Your task to perform on an android device: turn off picture-in-picture Image 0: 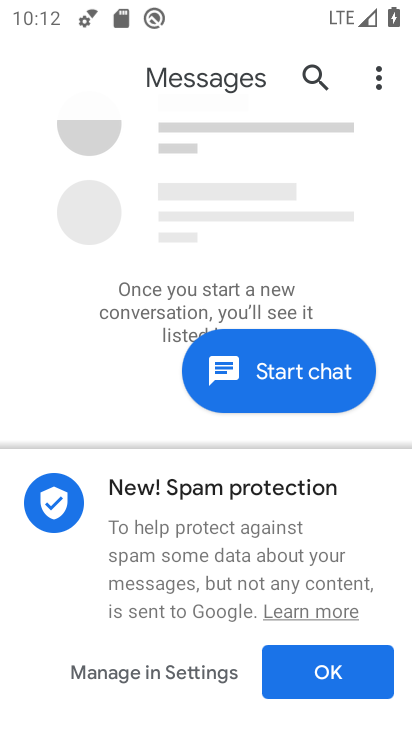
Step 0: press home button
Your task to perform on an android device: turn off picture-in-picture Image 1: 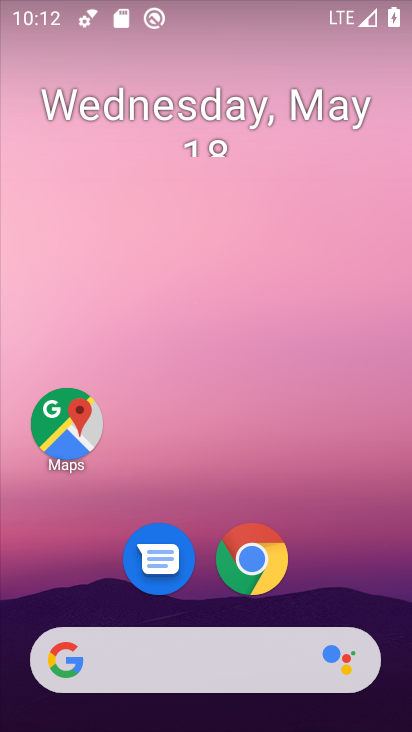
Step 1: click (272, 554)
Your task to perform on an android device: turn off picture-in-picture Image 2: 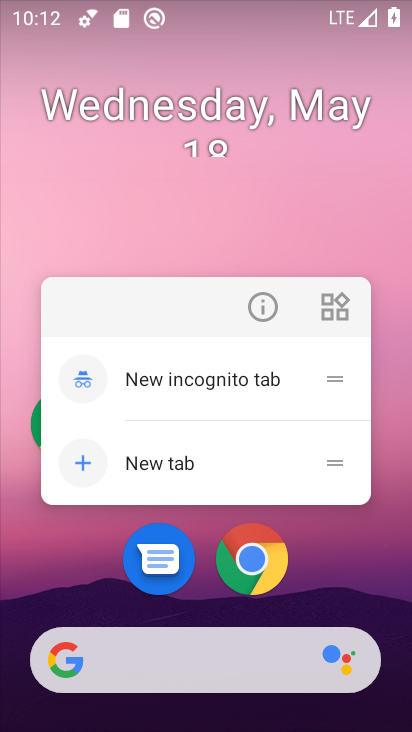
Step 2: click (261, 308)
Your task to perform on an android device: turn off picture-in-picture Image 3: 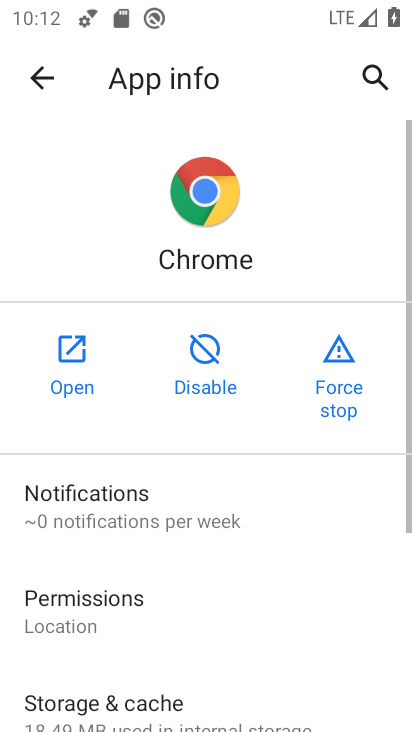
Step 3: drag from (204, 549) to (253, 235)
Your task to perform on an android device: turn off picture-in-picture Image 4: 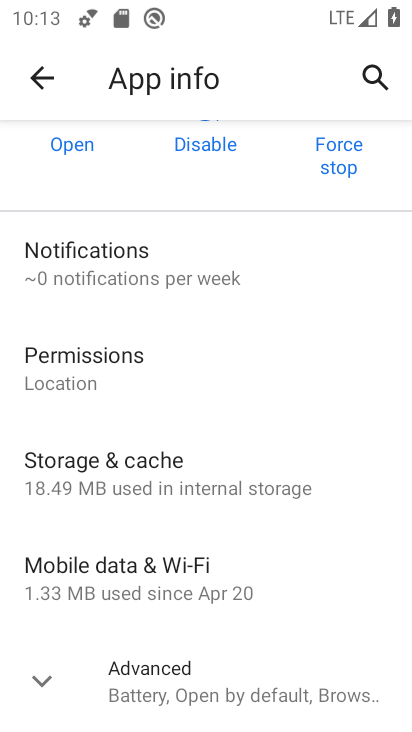
Step 4: drag from (165, 591) to (185, 413)
Your task to perform on an android device: turn off picture-in-picture Image 5: 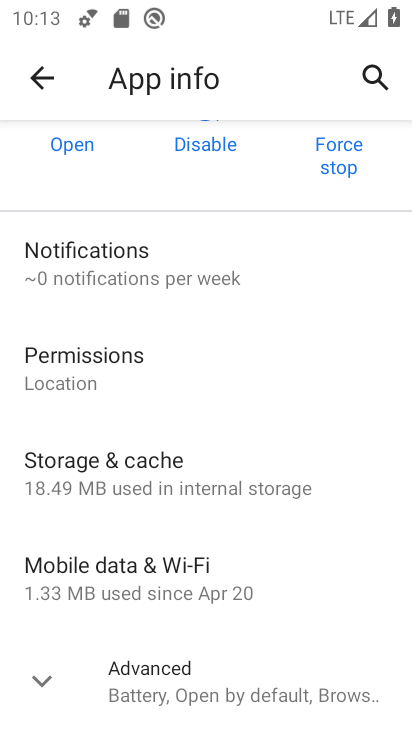
Step 5: click (42, 683)
Your task to perform on an android device: turn off picture-in-picture Image 6: 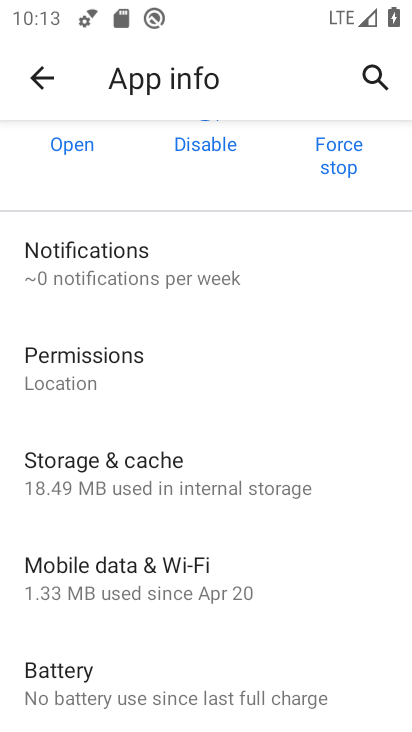
Step 6: drag from (198, 649) to (262, 345)
Your task to perform on an android device: turn off picture-in-picture Image 7: 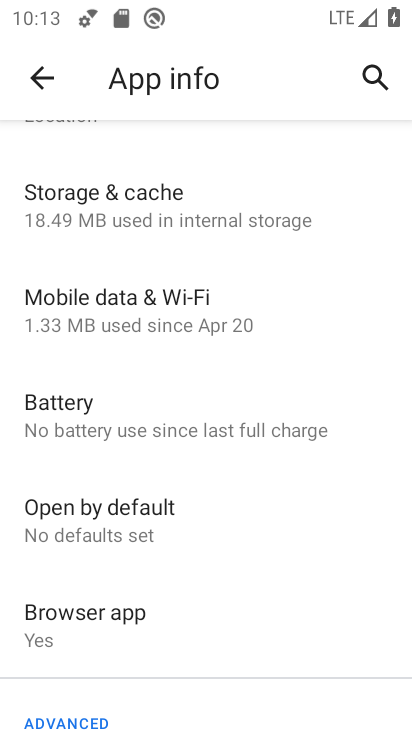
Step 7: drag from (141, 543) to (219, 198)
Your task to perform on an android device: turn off picture-in-picture Image 8: 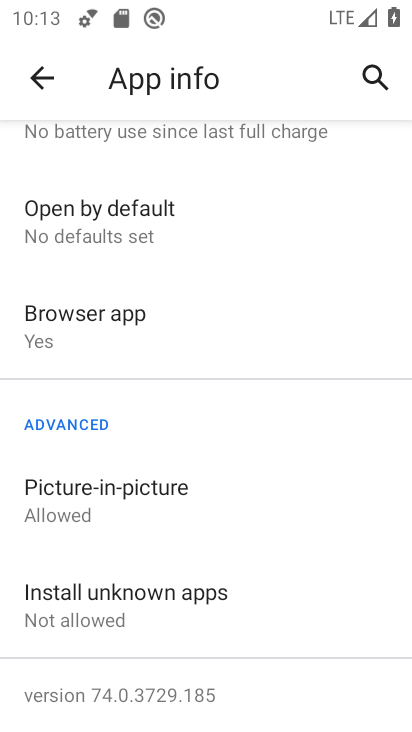
Step 8: click (163, 482)
Your task to perform on an android device: turn off picture-in-picture Image 9: 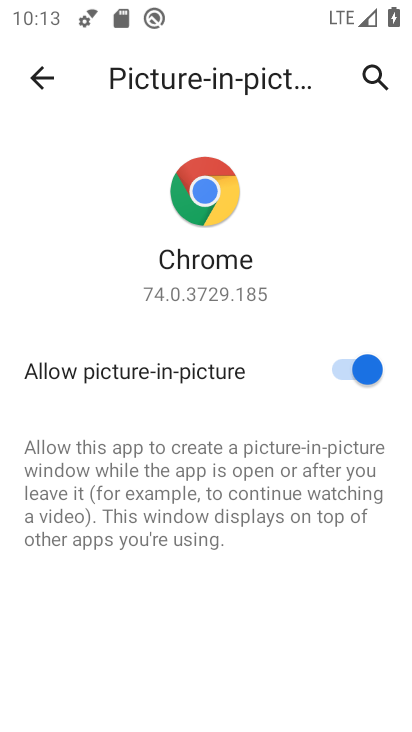
Step 9: click (345, 364)
Your task to perform on an android device: turn off picture-in-picture Image 10: 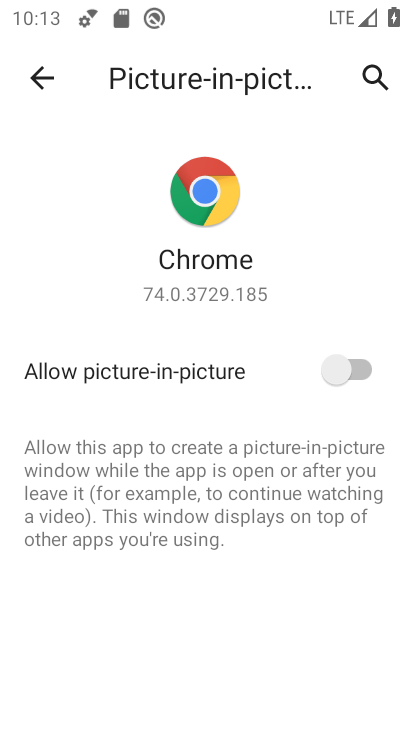
Step 10: task complete